Your task to perform on an android device: Search for pizza restaurants on Maps Image 0: 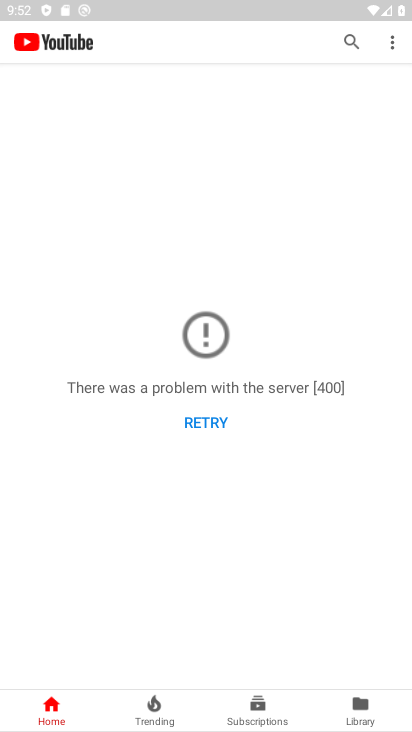
Step 0: press home button
Your task to perform on an android device: Search for pizza restaurants on Maps Image 1: 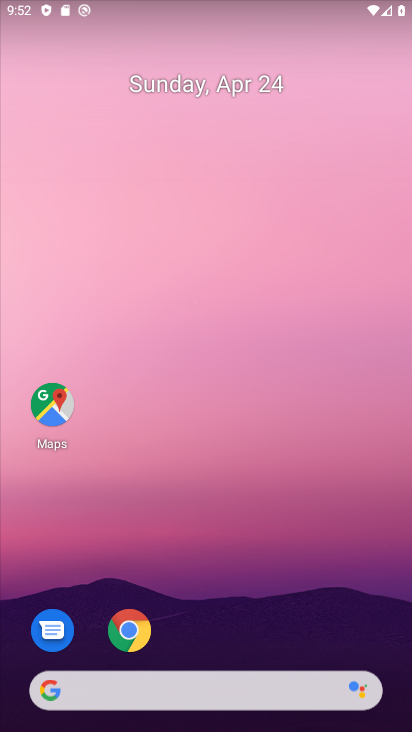
Step 1: click (52, 403)
Your task to perform on an android device: Search for pizza restaurants on Maps Image 2: 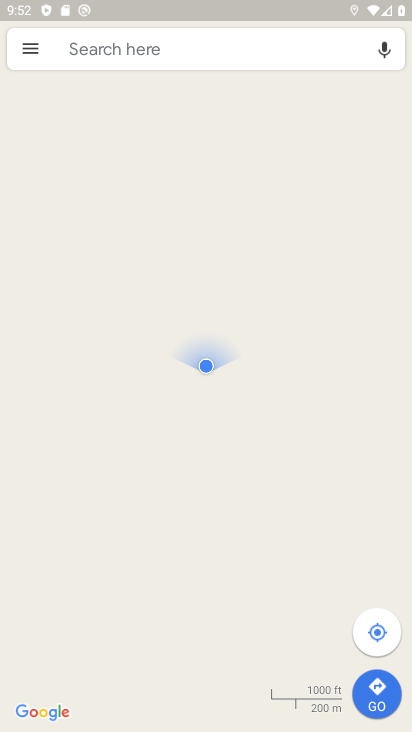
Step 2: click (161, 60)
Your task to perform on an android device: Search for pizza restaurants on Maps Image 3: 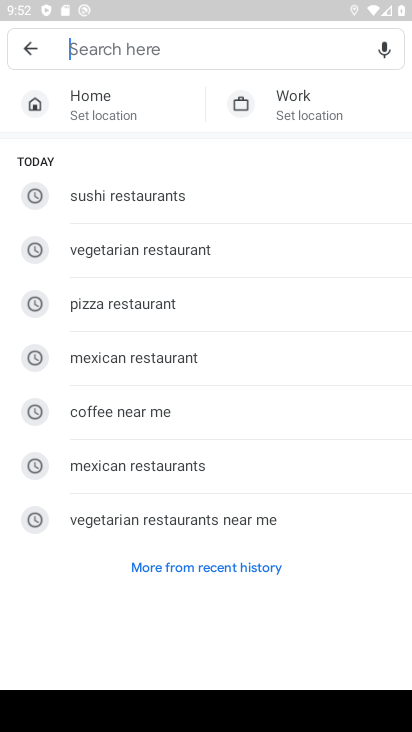
Step 3: type "pizza restaurants"
Your task to perform on an android device: Search for pizza restaurants on Maps Image 4: 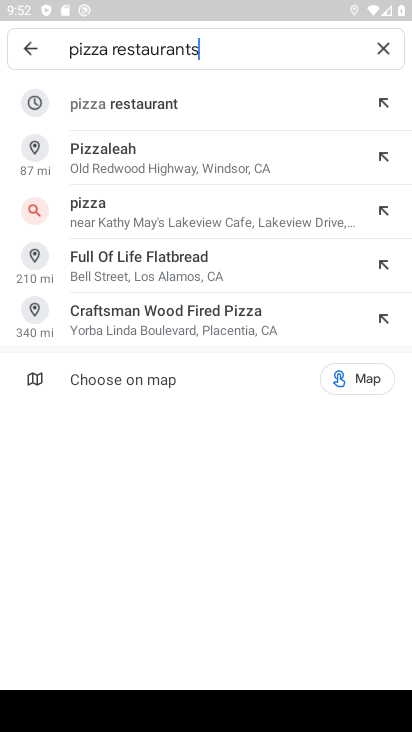
Step 4: click (188, 101)
Your task to perform on an android device: Search for pizza restaurants on Maps Image 5: 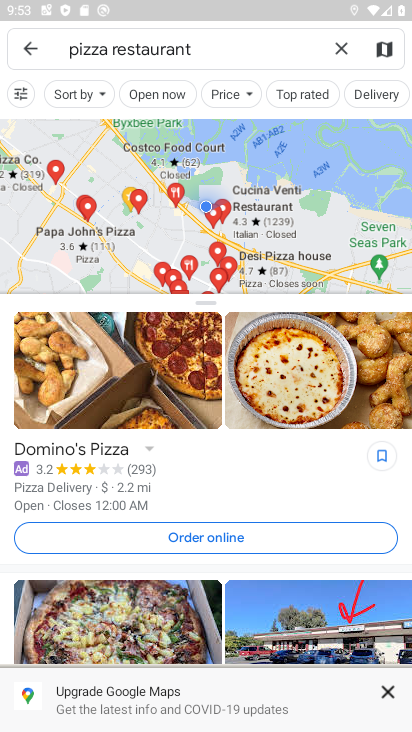
Step 5: task complete